Your task to perform on an android device: set the timer Image 0: 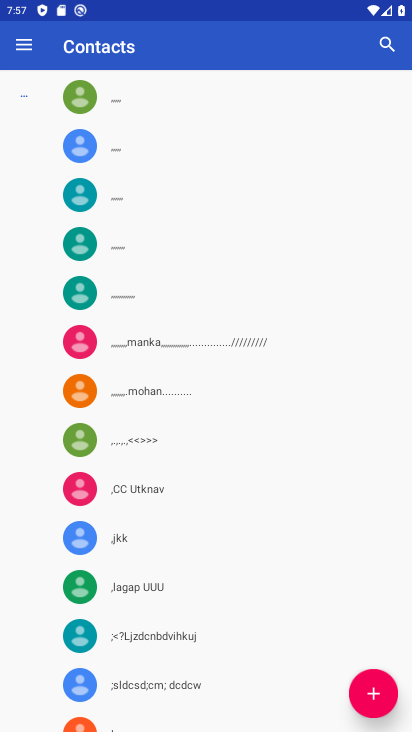
Step 0: drag from (159, 637) to (242, 227)
Your task to perform on an android device: set the timer Image 1: 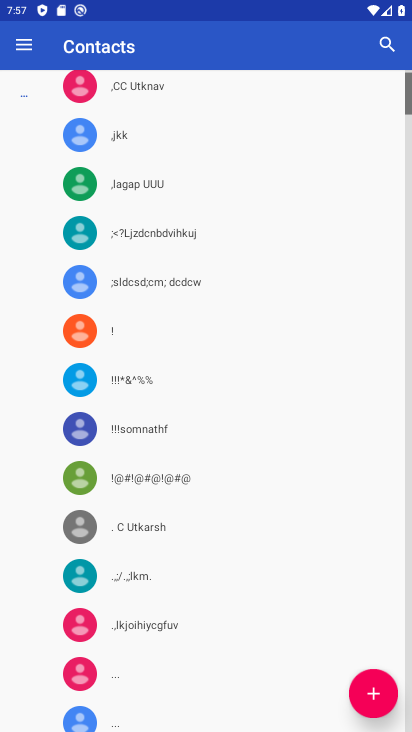
Step 1: press home button
Your task to perform on an android device: set the timer Image 2: 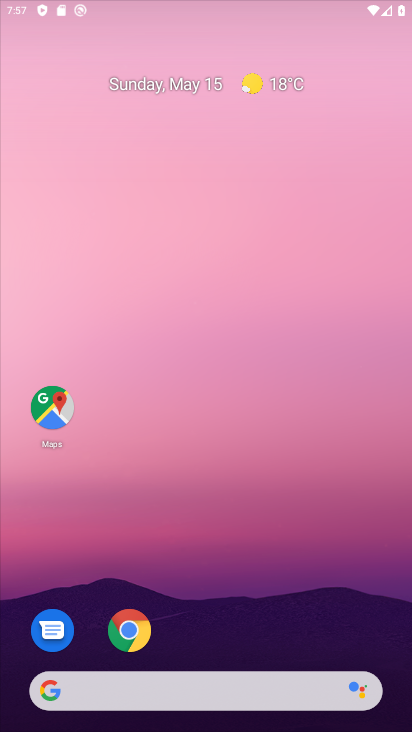
Step 2: drag from (233, 573) to (206, 35)
Your task to perform on an android device: set the timer Image 3: 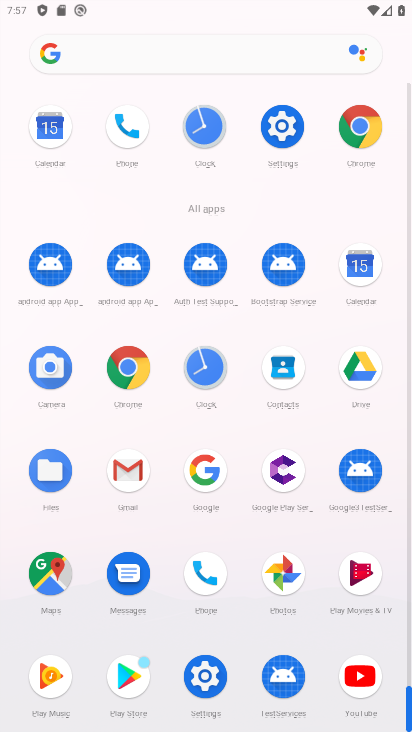
Step 3: click (197, 365)
Your task to perform on an android device: set the timer Image 4: 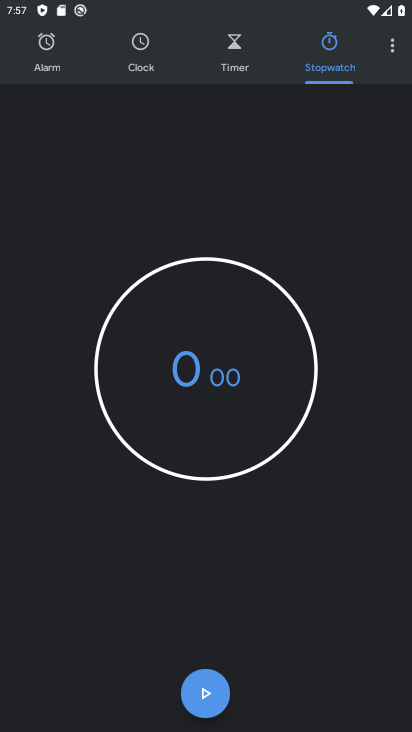
Step 4: click (231, 39)
Your task to perform on an android device: set the timer Image 5: 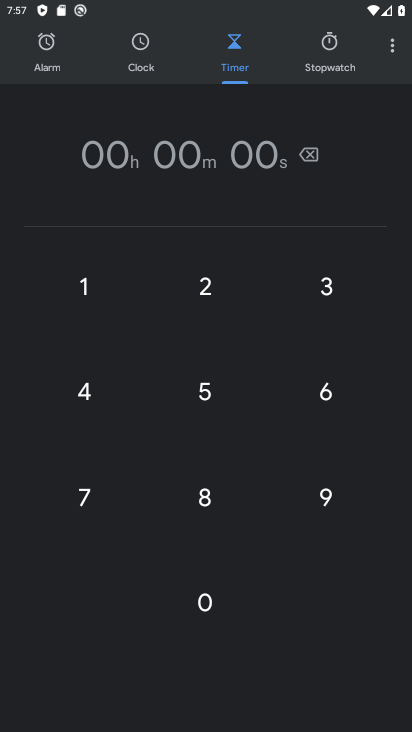
Step 5: click (199, 374)
Your task to perform on an android device: set the timer Image 6: 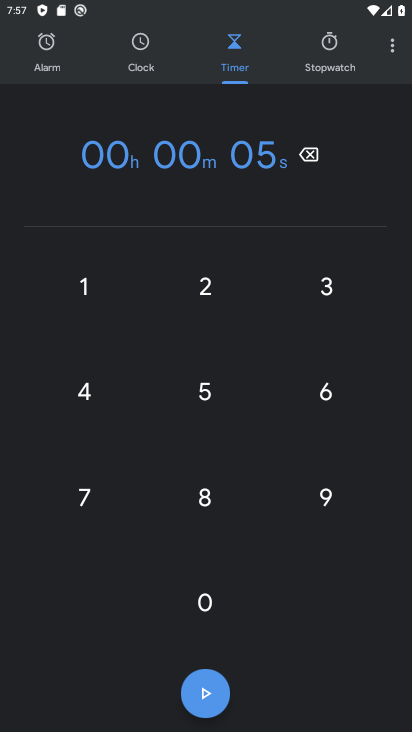
Step 6: click (213, 315)
Your task to perform on an android device: set the timer Image 7: 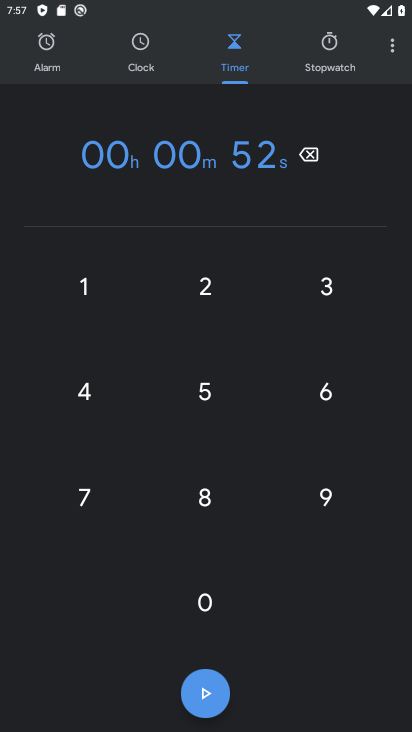
Step 7: click (210, 707)
Your task to perform on an android device: set the timer Image 8: 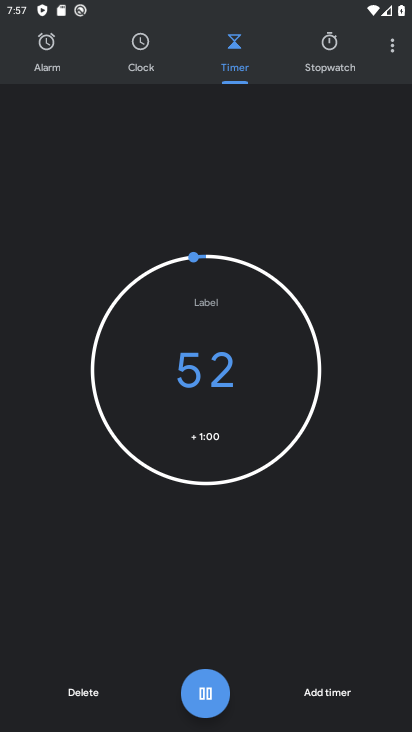
Step 8: task complete